Your task to perform on an android device: add a contact Image 0: 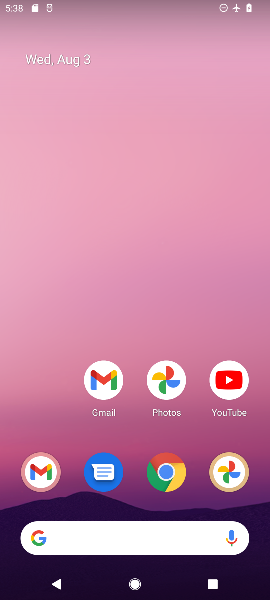
Step 0: drag from (244, 506) to (114, 33)
Your task to perform on an android device: add a contact Image 1: 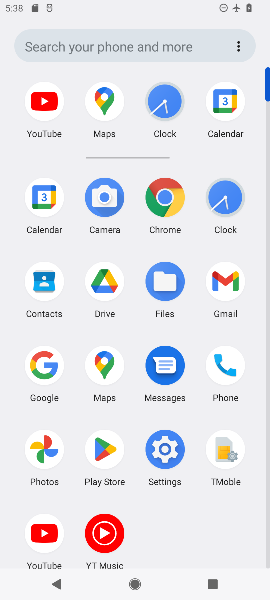
Step 1: click (40, 286)
Your task to perform on an android device: add a contact Image 2: 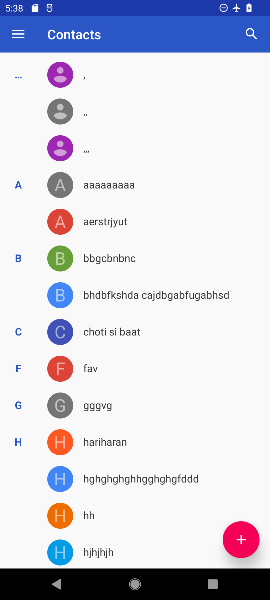
Step 2: click (238, 540)
Your task to perform on an android device: add a contact Image 3: 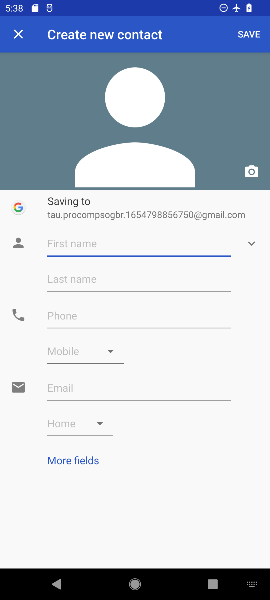
Step 3: type "ritesh"
Your task to perform on an android device: add a contact Image 4: 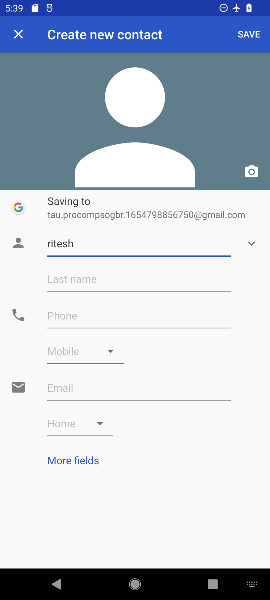
Step 4: click (248, 31)
Your task to perform on an android device: add a contact Image 5: 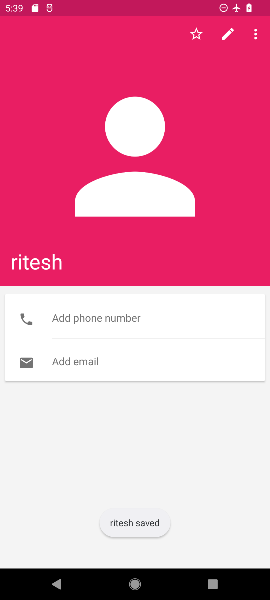
Step 5: task complete